Your task to perform on an android device: turn off airplane mode Image 0: 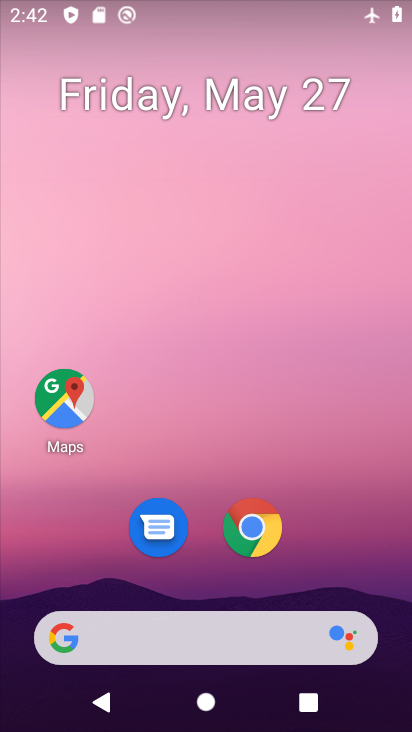
Step 0: drag from (274, 266) to (299, 5)
Your task to perform on an android device: turn off airplane mode Image 1: 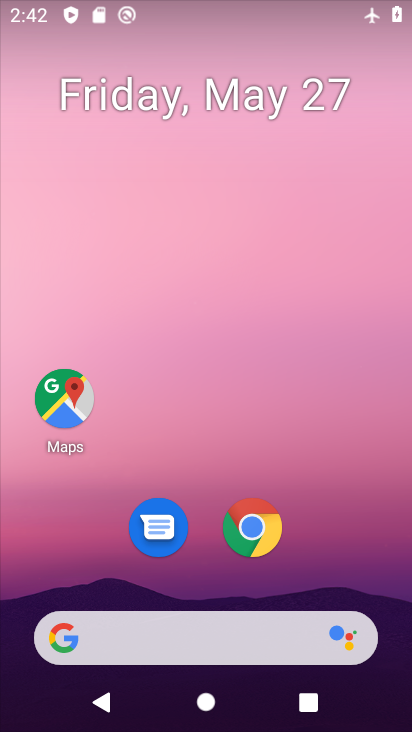
Step 1: drag from (243, 664) to (381, 8)
Your task to perform on an android device: turn off airplane mode Image 2: 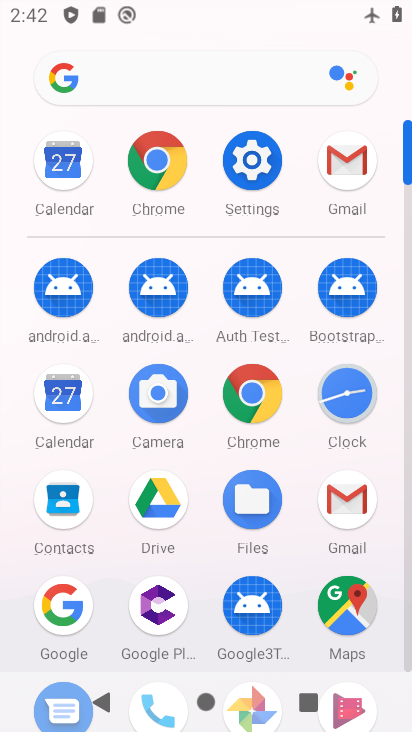
Step 2: click (265, 166)
Your task to perform on an android device: turn off airplane mode Image 3: 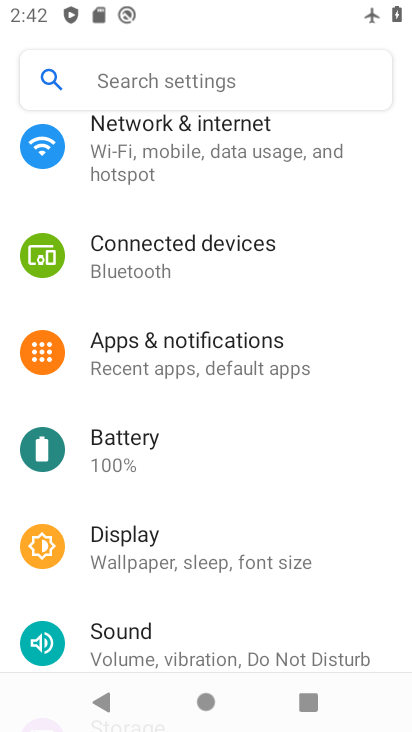
Step 3: click (284, 138)
Your task to perform on an android device: turn off airplane mode Image 4: 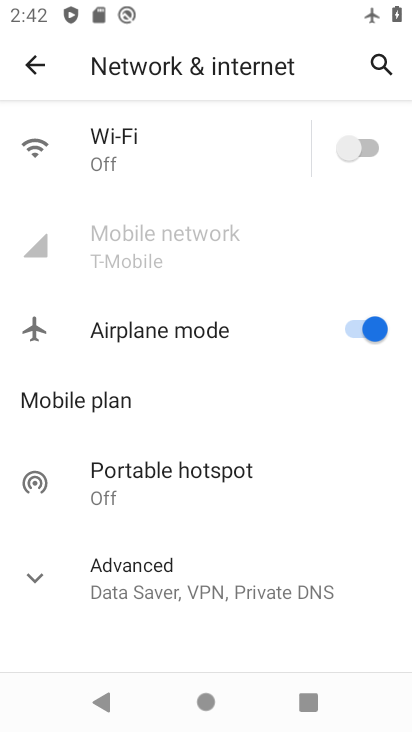
Step 4: click (378, 334)
Your task to perform on an android device: turn off airplane mode Image 5: 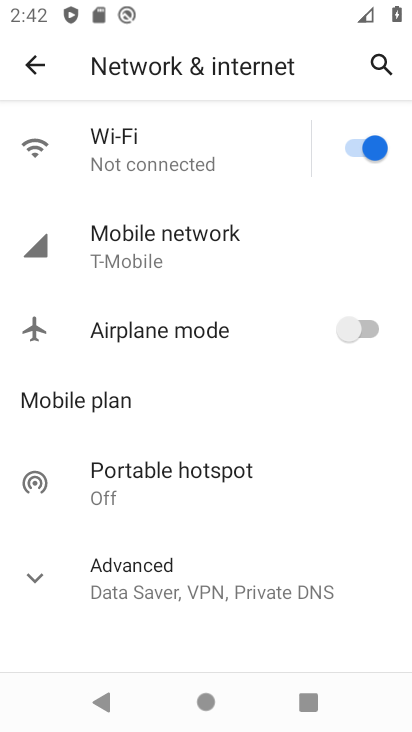
Step 5: task complete